Your task to perform on an android device: See recent photos Image 0: 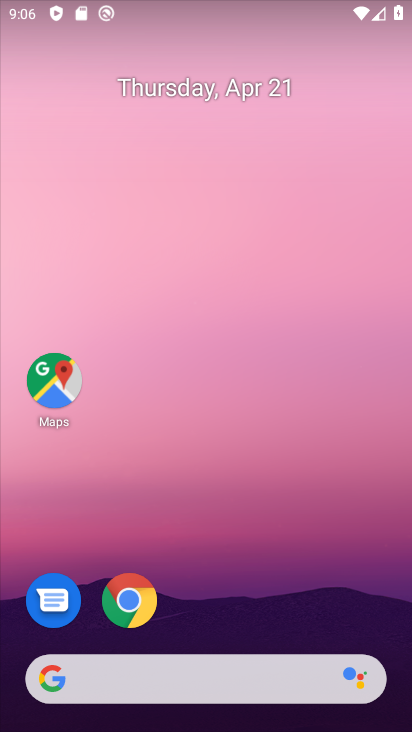
Step 0: drag from (243, 553) to (259, 36)
Your task to perform on an android device: See recent photos Image 1: 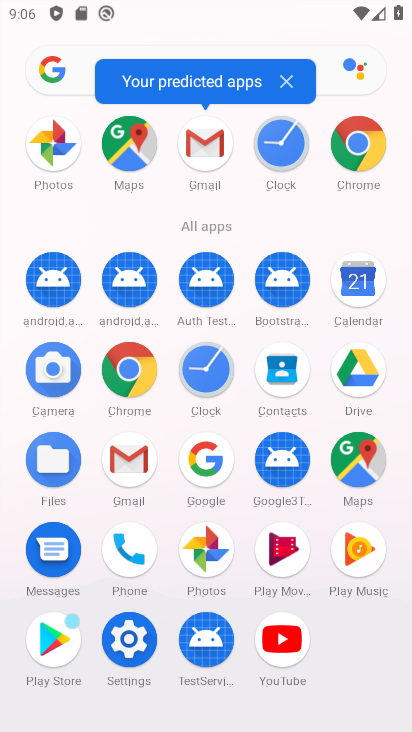
Step 1: click (48, 144)
Your task to perform on an android device: See recent photos Image 2: 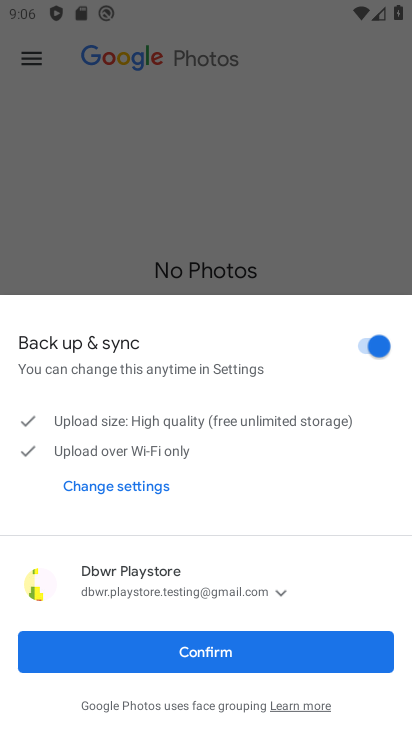
Step 2: click (188, 658)
Your task to perform on an android device: See recent photos Image 3: 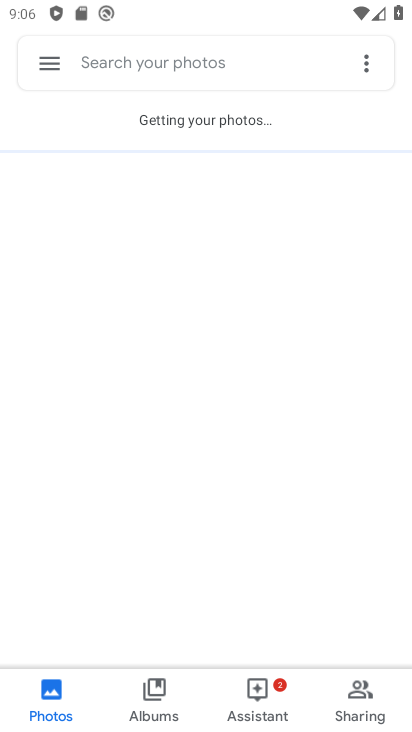
Step 3: task complete